Your task to perform on an android device: visit the assistant section in the google photos Image 0: 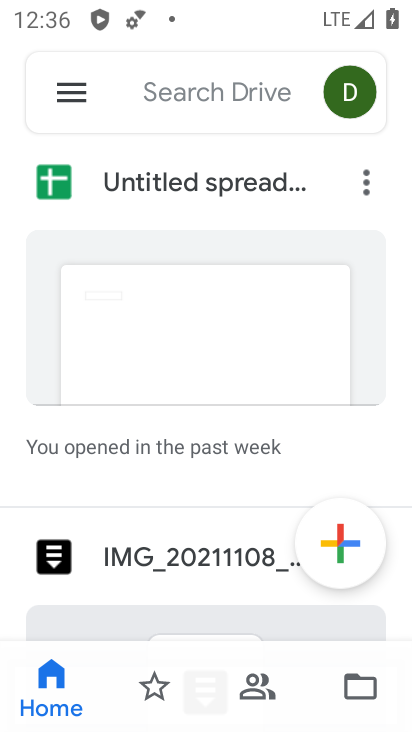
Step 0: press home button
Your task to perform on an android device: visit the assistant section in the google photos Image 1: 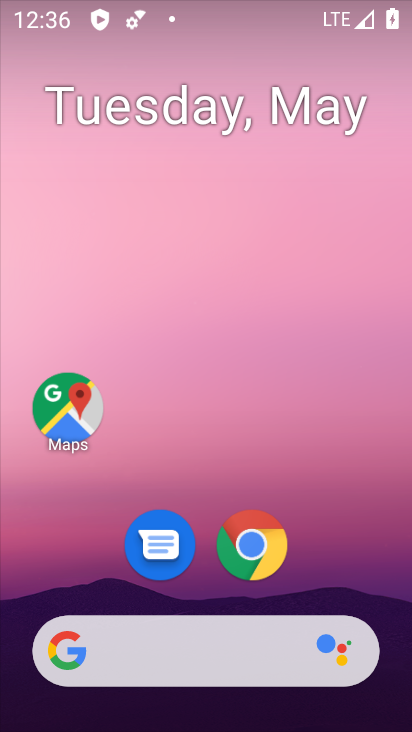
Step 1: drag from (344, 541) to (324, 135)
Your task to perform on an android device: visit the assistant section in the google photos Image 2: 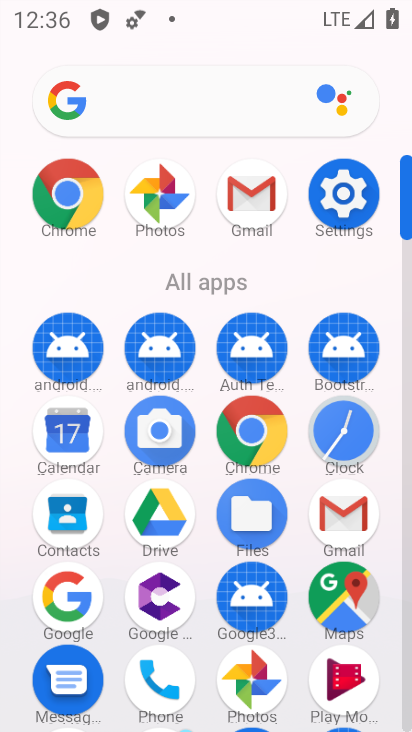
Step 2: drag from (381, 471) to (382, 282)
Your task to perform on an android device: visit the assistant section in the google photos Image 3: 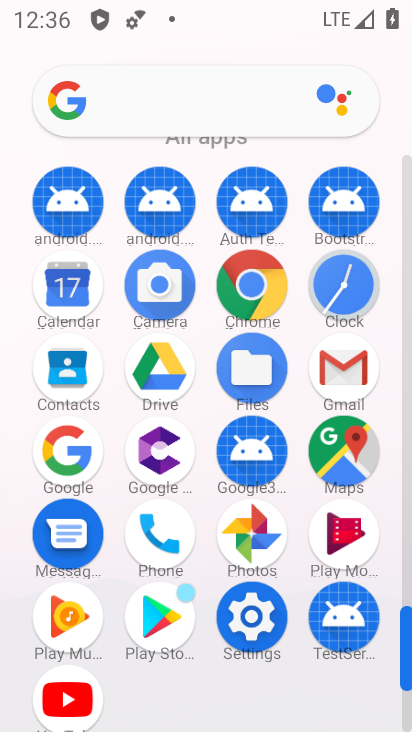
Step 3: click (243, 527)
Your task to perform on an android device: visit the assistant section in the google photos Image 4: 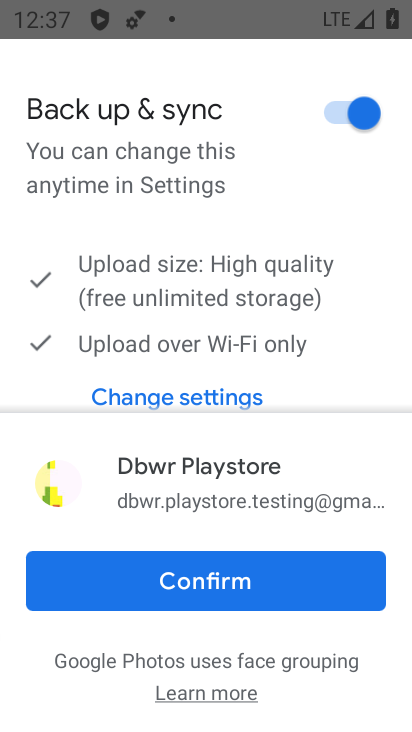
Step 4: click (256, 581)
Your task to perform on an android device: visit the assistant section in the google photos Image 5: 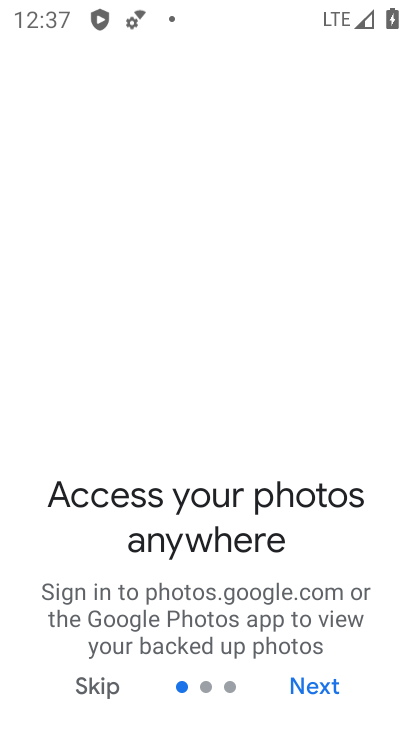
Step 5: click (297, 687)
Your task to perform on an android device: visit the assistant section in the google photos Image 6: 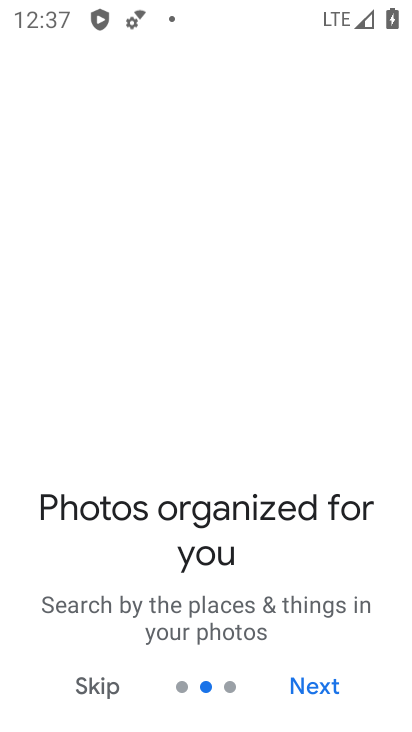
Step 6: click (298, 686)
Your task to perform on an android device: visit the assistant section in the google photos Image 7: 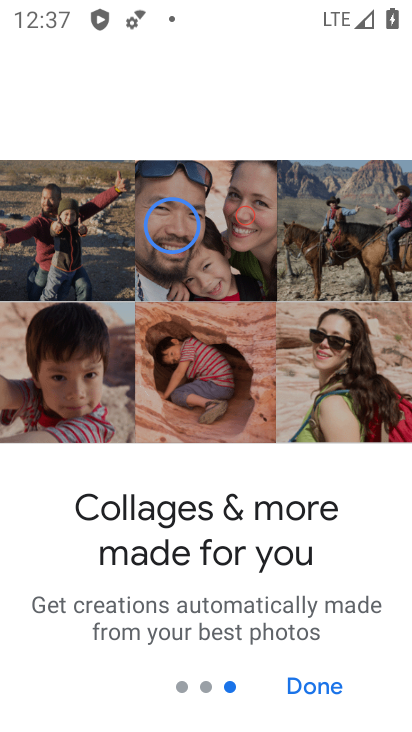
Step 7: click (298, 686)
Your task to perform on an android device: visit the assistant section in the google photos Image 8: 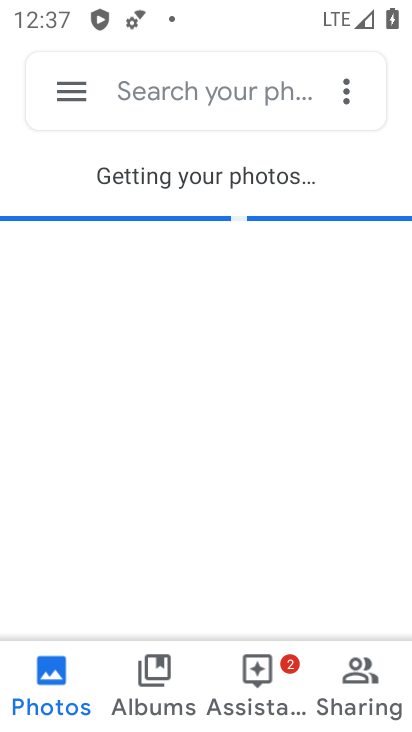
Step 8: click (272, 685)
Your task to perform on an android device: visit the assistant section in the google photos Image 9: 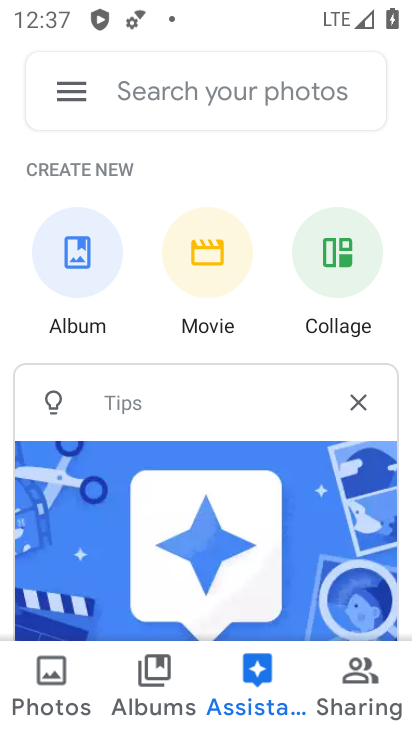
Step 9: task complete